Your task to perform on an android device: turn off smart reply in the gmail app Image 0: 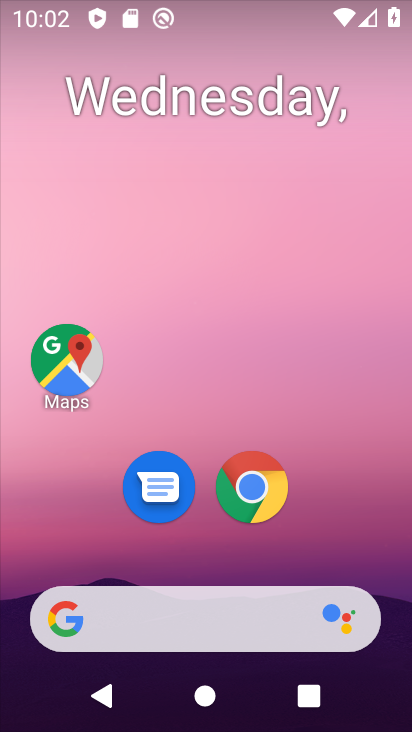
Step 0: drag from (131, 451) to (31, 613)
Your task to perform on an android device: turn off smart reply in the gmail app Image 1: 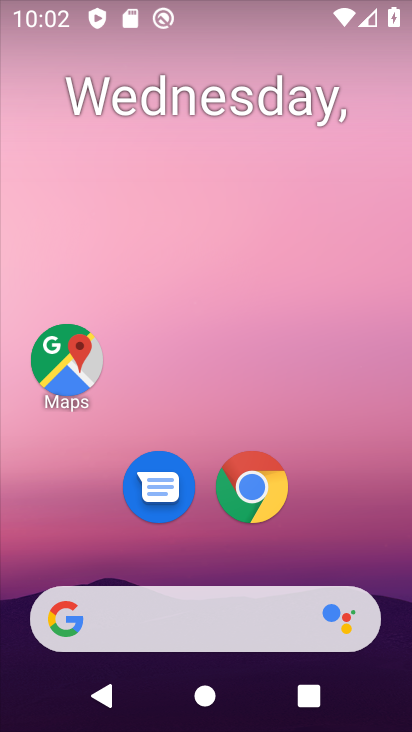
Step 1: drag from (245, 701) to (211, 95)
Your task to perform on an android device: turn off smart reply in the gmail app Image 2: 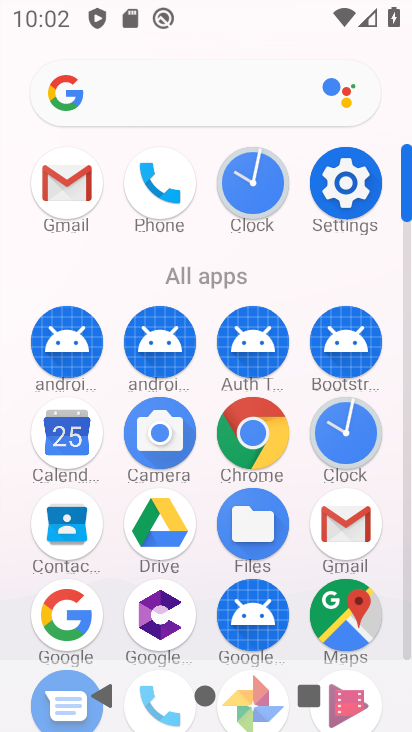
Step 2: click (60, 174)
Your task to perform on an android device: turn off smart reply in the gmail app Image 3: 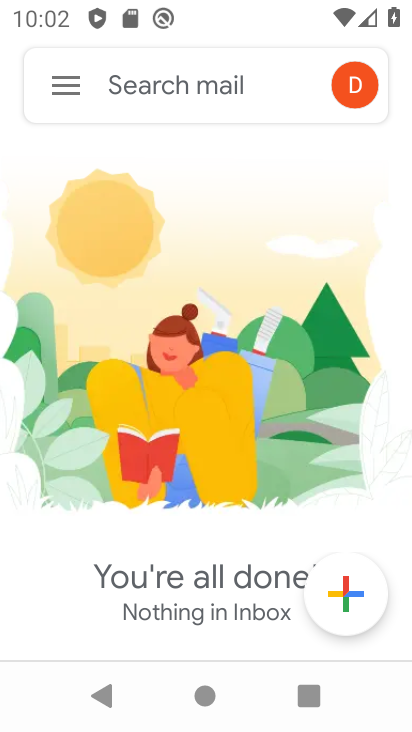
Step 3: click (69, 90)
Your task to perform on an android device: turn off smart reply in the gmail app Image 4: 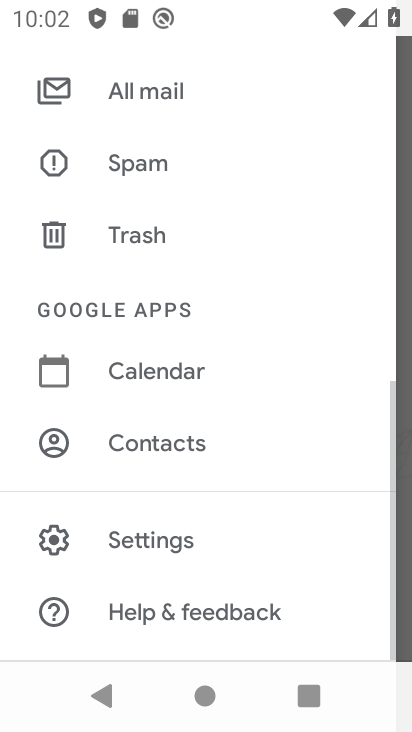
Step 4: click (178, 525)
Your task to perform on an android device: turn off smart reply in the gmail app Image 5: 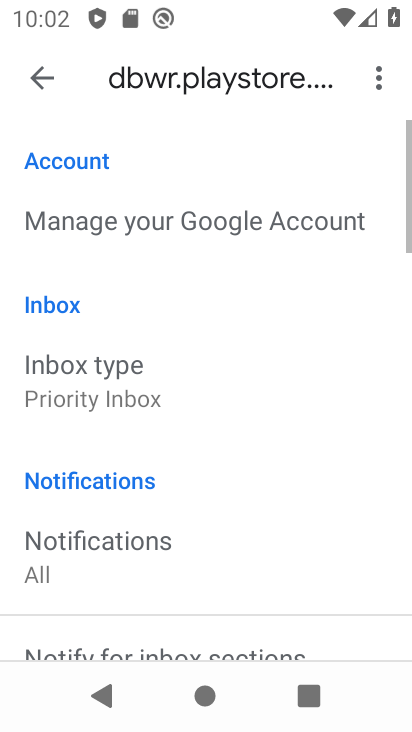
Step 5: drag from (247, 619) to (210, 21)
Your task to perform on an android device: turn off smart reply in the gmail app Image 6: 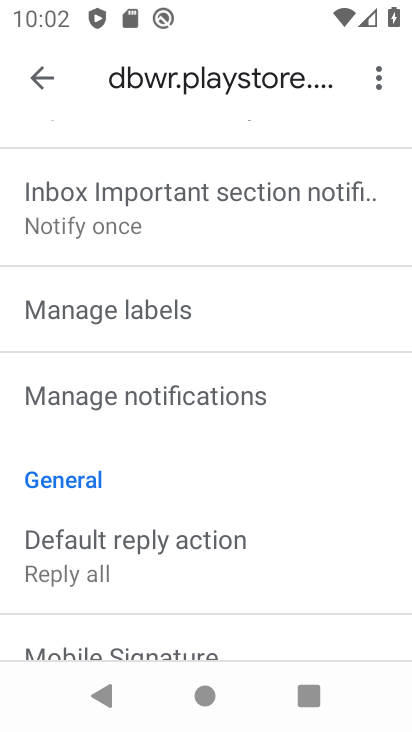
Step 6: drag from (252, 607) to (194, 63)
Your task to perform on an android device: turn off smart reply in the gmail app Image 7: 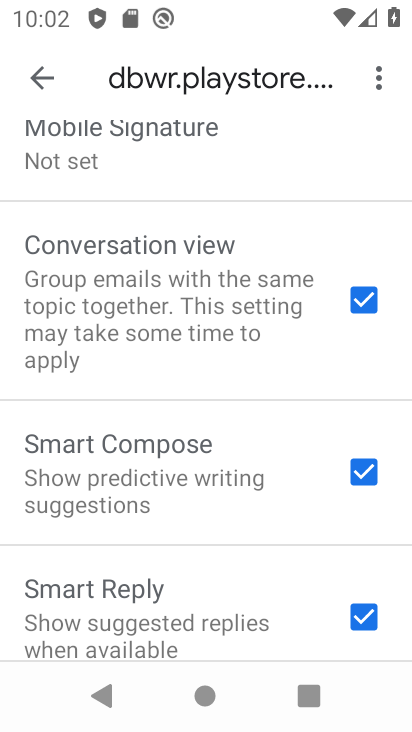
Step 7: click (367, 618)
Your task to perform on an android device: turn off smart reply in the gmail app Image 8: 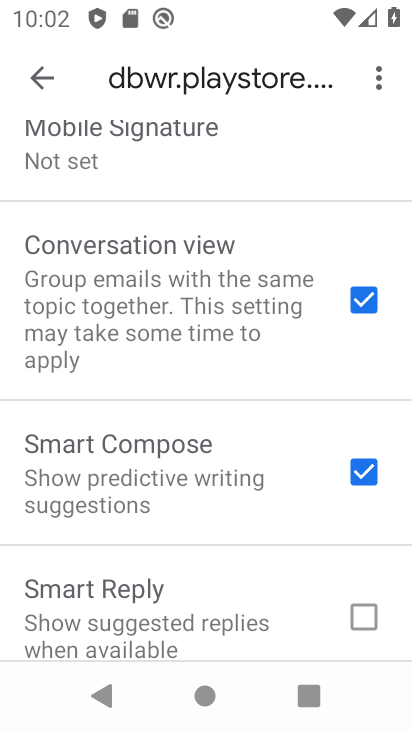
Step 8: task complete